Your task to perform on an android device: toggle javascript in the chrome app Image 0: 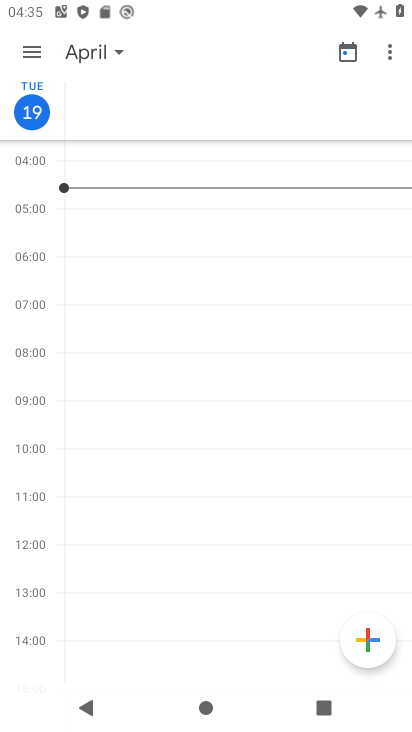
Step 0: press home button
Your task to perform on an android device: toggle javascript in the chrome app Image 1: 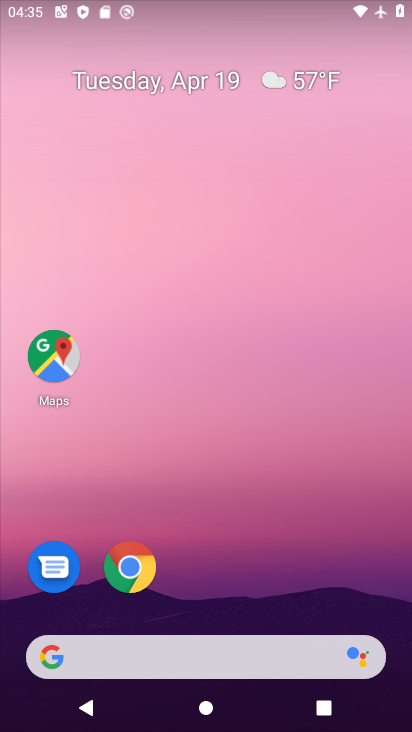
Step 1: drag from (313, 596) to (323, 239)
Your task to perform on an android device: toggle javascript in the chrome app Image 2: 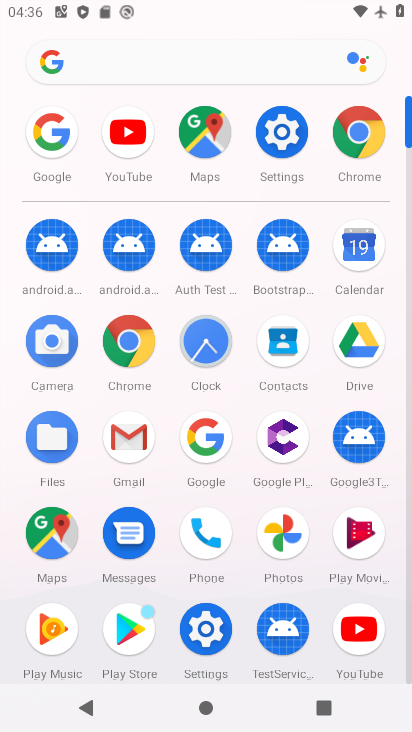
Step 2: click (132, 348)
Your task to perform on an android device: toggle javascript in the chrome app Image 3: 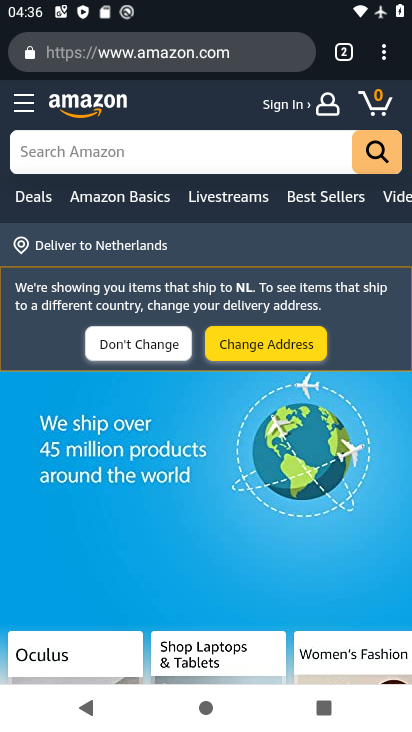
Step 3: click (385, 56)
Your task to perform on an android device: toggle javascript in the chrome app Image 4: 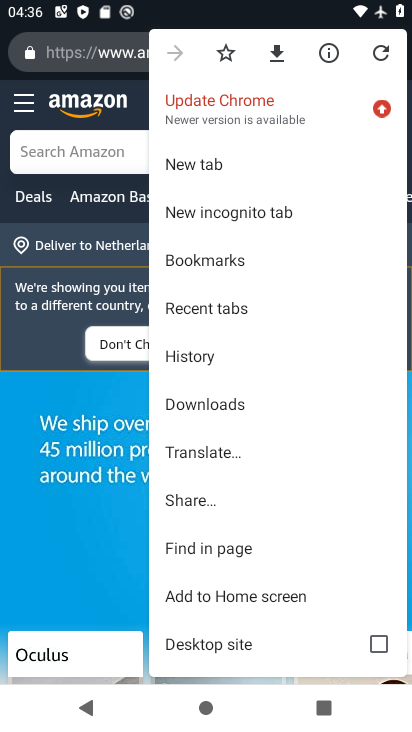
Step 4: drag from (330, 562) to (337, 455)
Your task to perform on an android device: toggle javascript in the chrome app Image 5: 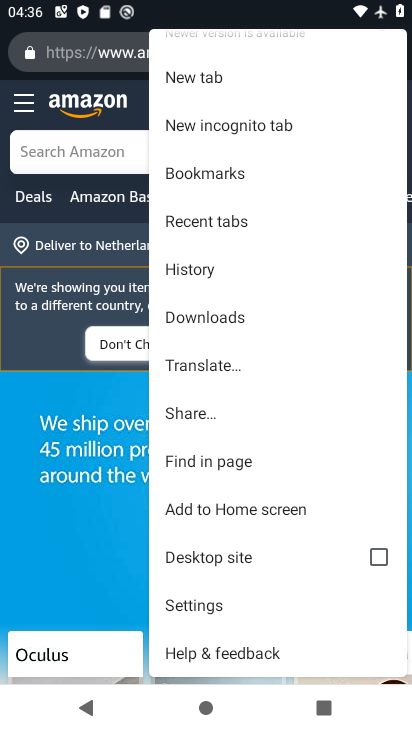
Step 5: click (215, 604)
Your task to perform on an android device: toggle javascript in the chrome app Image 6: 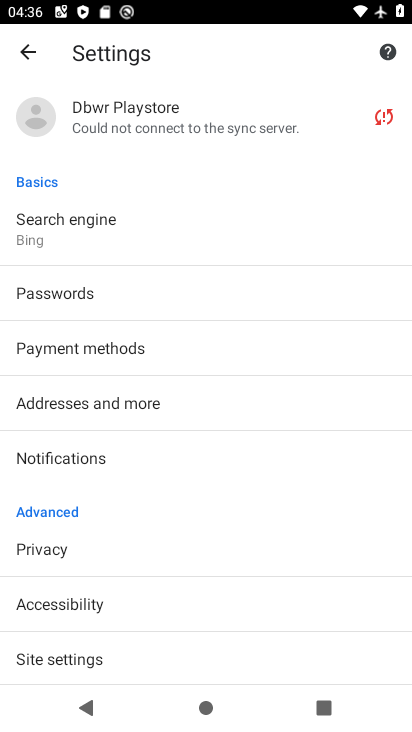
Step 6: drag from (230, 582) to (241, 496)
Your task to perform on an android device: toggle javascript in the chrome app Image 7: 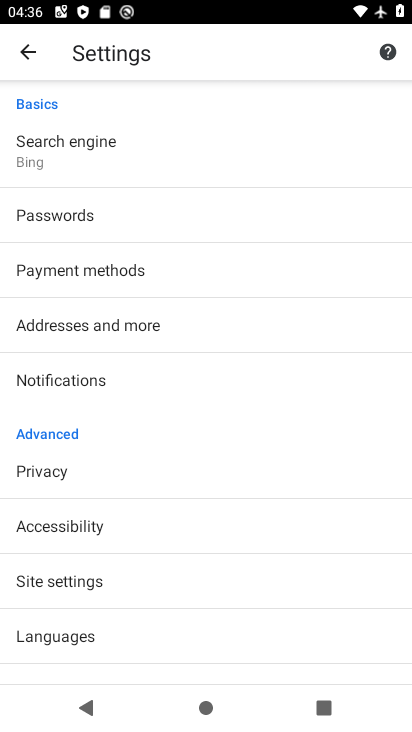
Step 7: drag from (258, 612) to (264, 498)
Your task to perform on an android device: toggle javascript in the chrome app Image 8: 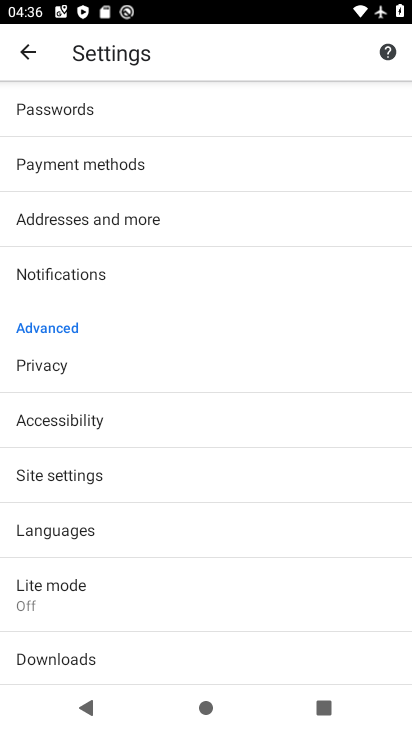
Step 8: drag from (270, 604) to (276, 487)
Your task to perform on an android device: toggle javascript in the chrome app Image 9: 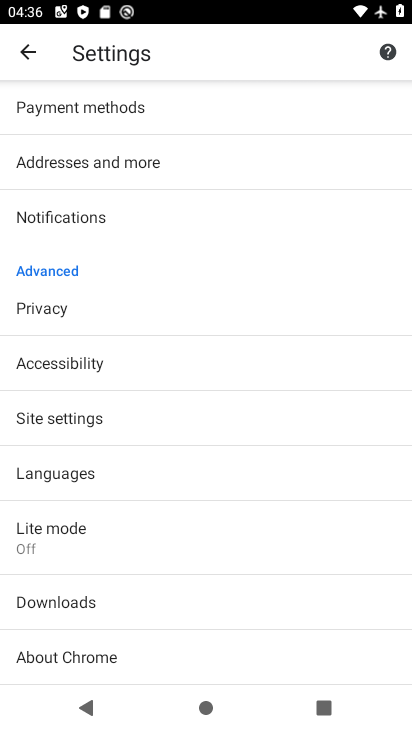
Step 9: drag from (289, 594) to (289, 469)
Your task to perform on an android device: toggle javascript in the chrome app Image 10: 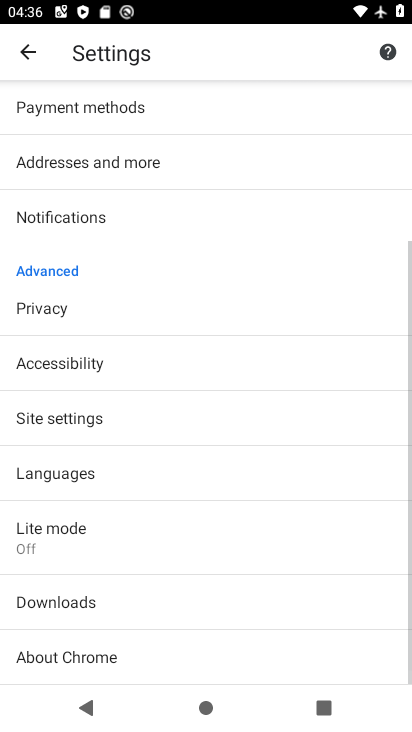
Step 10: drag from (313, 378) to (306, 494)
Your task to perform on an android device: toggle javascript in the chrome app Image 11: 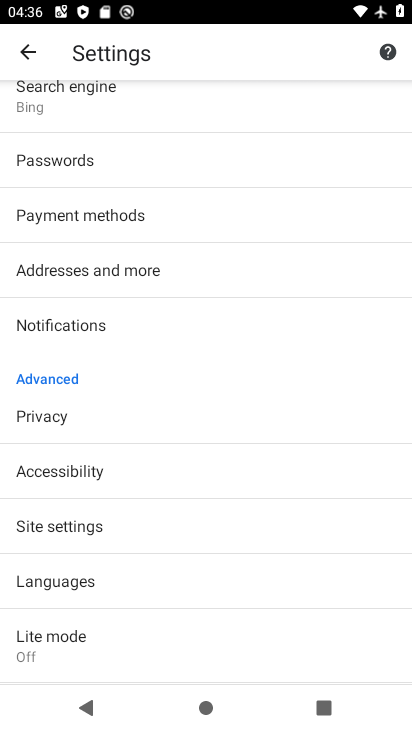
Step 11: drag from (302, 367) to (300, 473)
Your task to perform on an android device: toggle javascript in the chrome app Image 12: 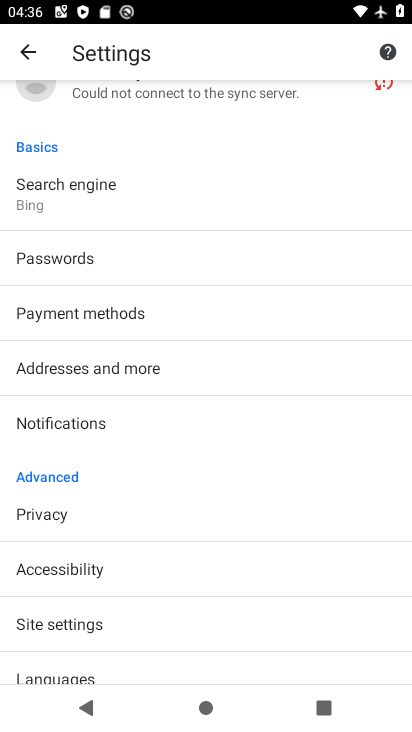
Step 12: click (217, 625)
Your task to perform on an android device: toggle javascript in the chrome app Image 13: 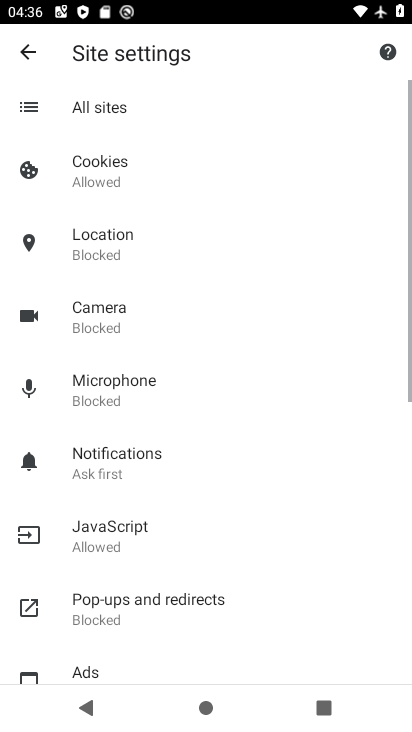
Step 13: drag from (282, 616) to (287, 524)
Your task to perform on an android device: toggle javascript in the chrome app Image 14: 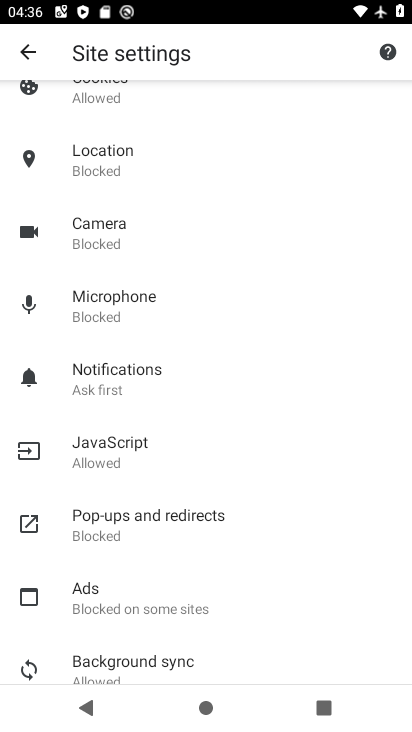
Step 14: drag from (296, 611) to (298, 477)
Your task to perform on an android device: toggle javascript in the chrome app Image 15: 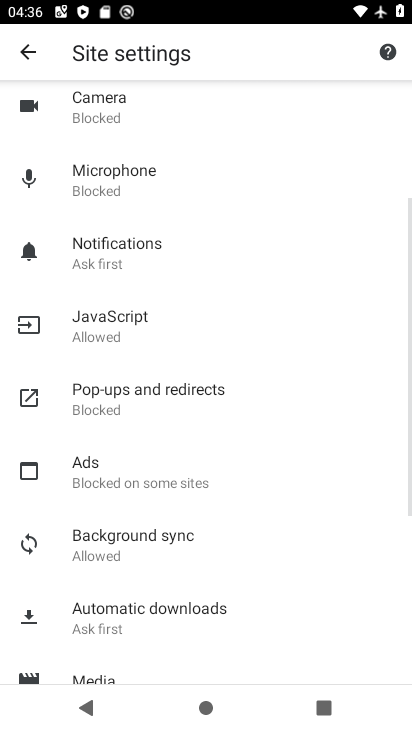
Step 15: drag from (296, 613) to (300, 454)
Your task to perform on an android device: toggle javascript in the chrome app Image 16: 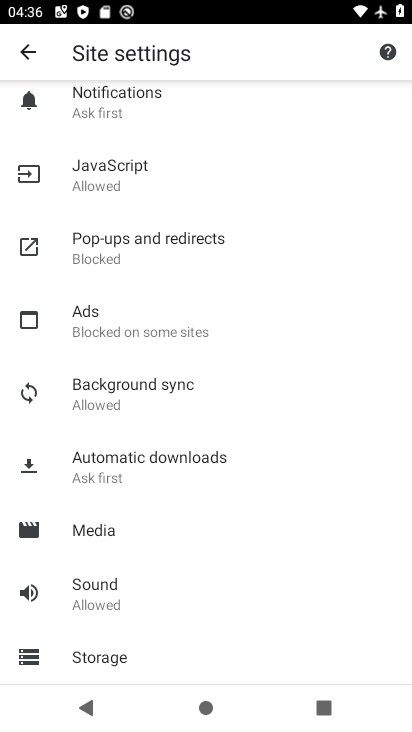
Step 16: drag from (297, 625) to (301, 422)
Your task to perform on an android device: toggle javascript in the chrome app Image 17: 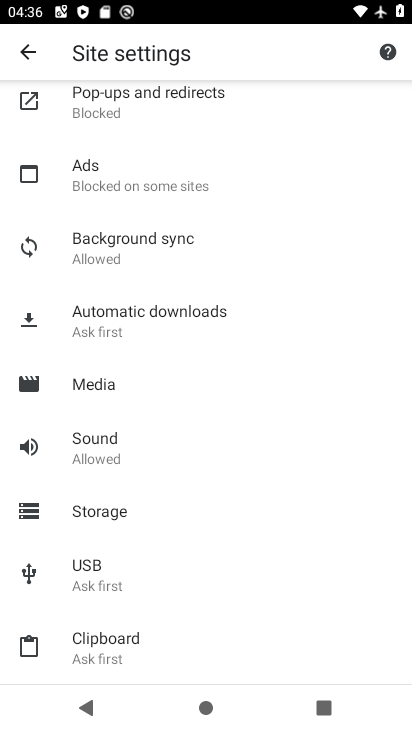
Step 17: drag from (311, 374) to (309, 489)
Your task to perform on an android device: toggle javascript in the chrome app Image 18: 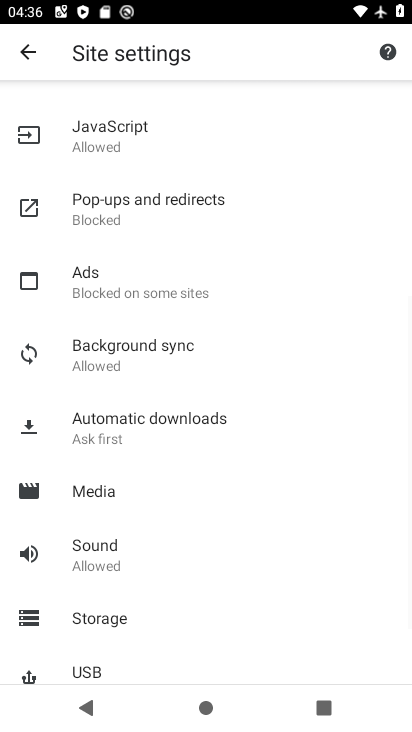
Step 18: drag from (324, 377) to (303, 499)
Your task to perform on an android device: toggle javascript in the chrome app Image 19: 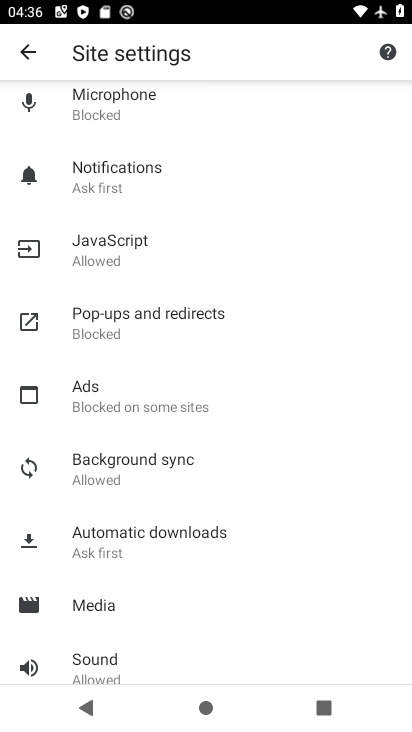
Step 19: drag from (303, 408) to (308, 538)
Your task to perform on an android device: toggle javascript in the chrome app Image 20: 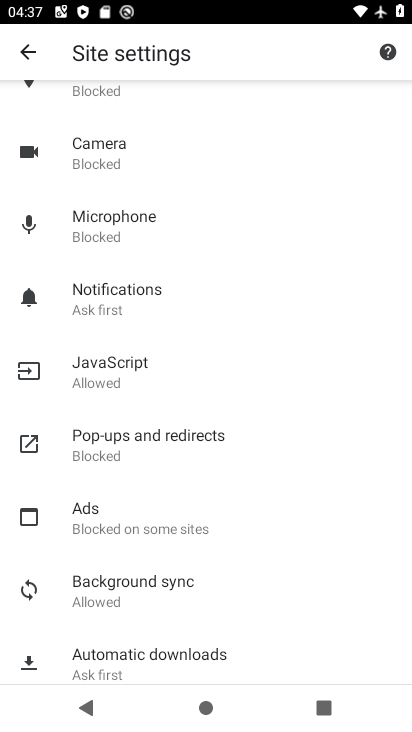
Step 20: click (112, 368)
Your task to perform on an android device: toggle javascript in the chrome app Image 21: 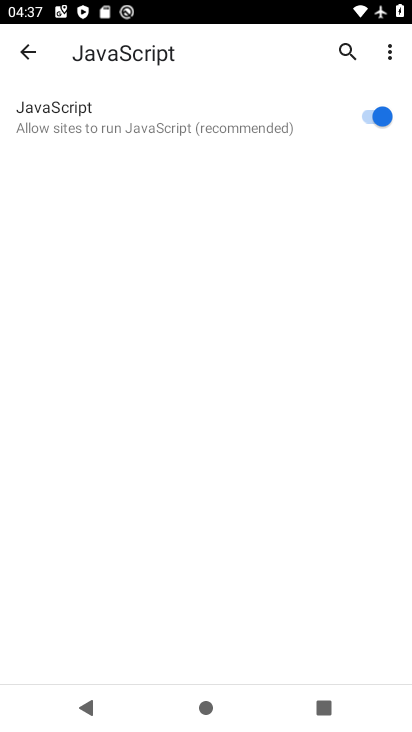
Step 21: click (379, 121)
Your task to perform on an android device: toggle javascript in the chrome app Image 22: 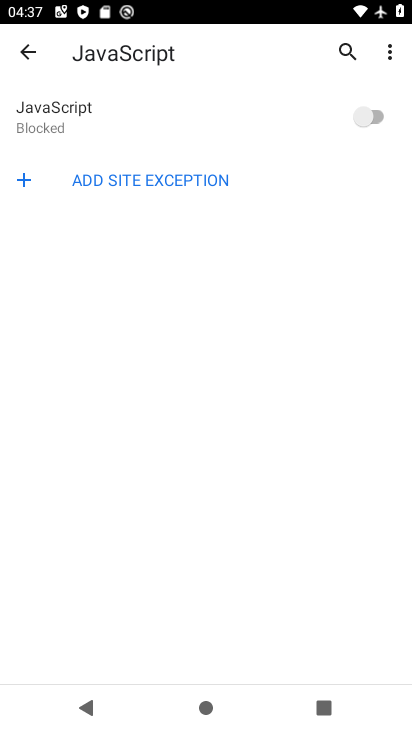
Step 22: task complete